Your task to perform on an android device: turn pop-ups on in chrome Image 0: 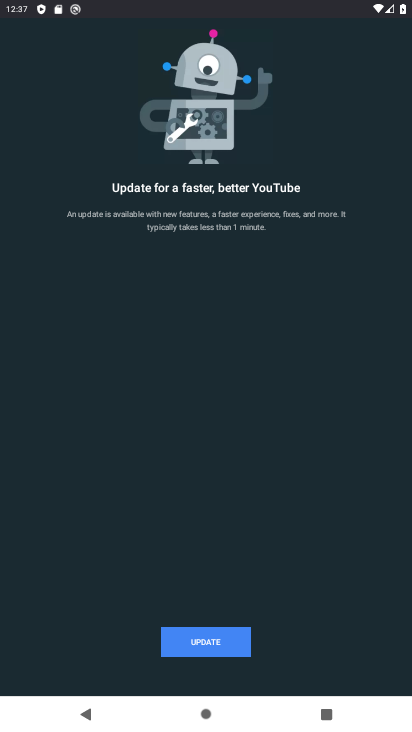
Step 0: drag from (156, 2) to (205, 198)
Your task to perform on an android device: turn pop-ups on in chrome Image 1: 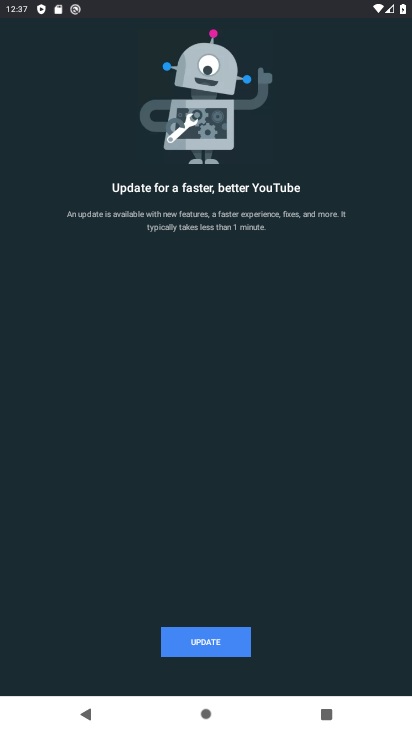
Step 1: press home button
Your task to perform on an android device: turn pop-ups on in chrome Image 2: 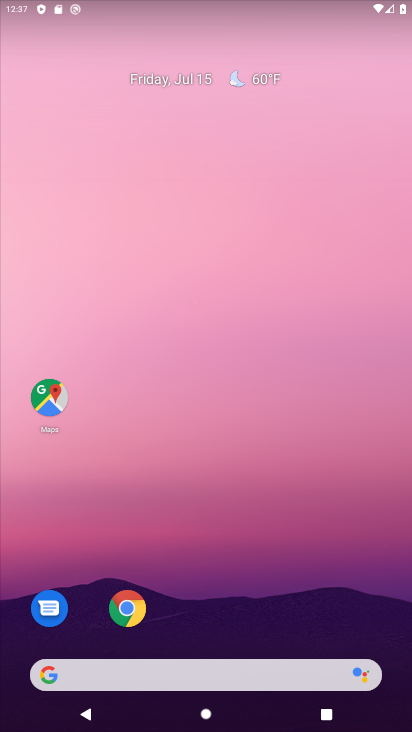
Step 2: drag from (296, 571) to (298, 75)
Your task to perform on an android device: turn pop-ups on in chrome Image 3: 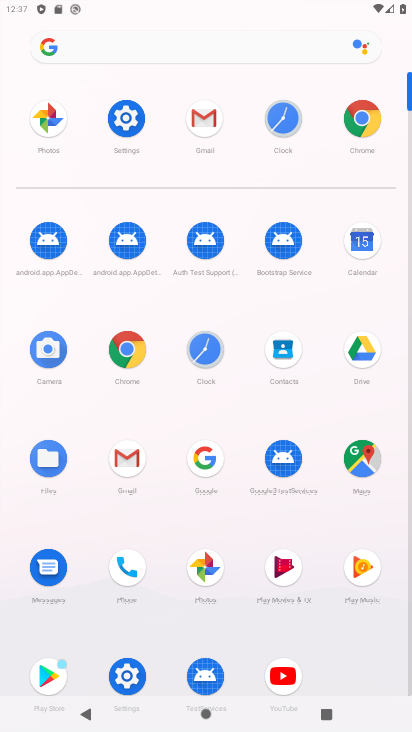
Step 3: click (124, 347)
Your task to perform on an android device: turn pop-ups on in chrome Image 4: 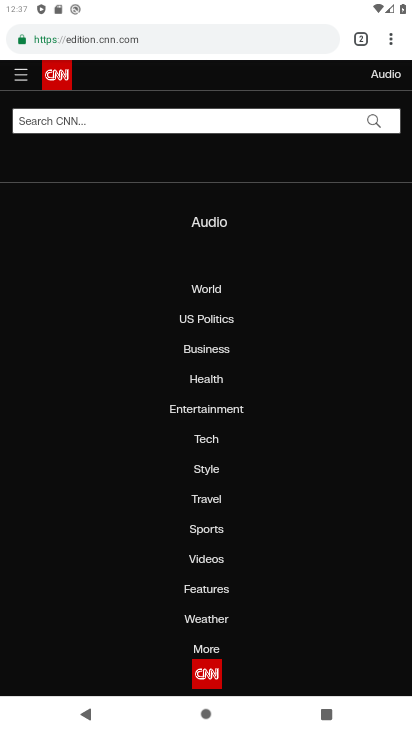
Step 4: drag from (391, 32) to (274, 477)
Your task to perform on an android device: turn pop-ups on in chrome Image 5: 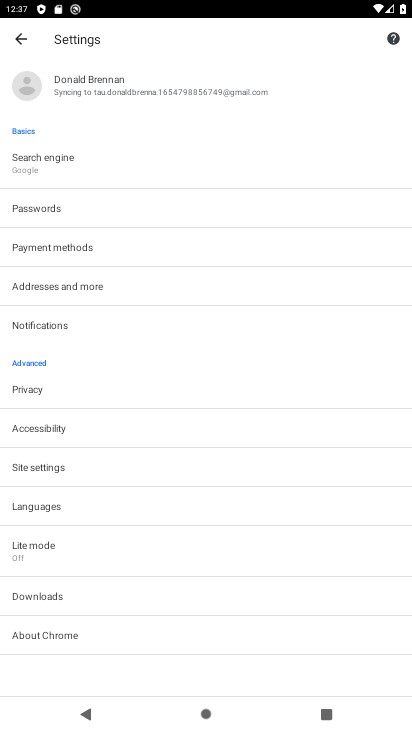
Step 5: drag from (149, 597) to (186, 238)
Your task to perform on an android device: turn pop-ups on in chrome Image 6: 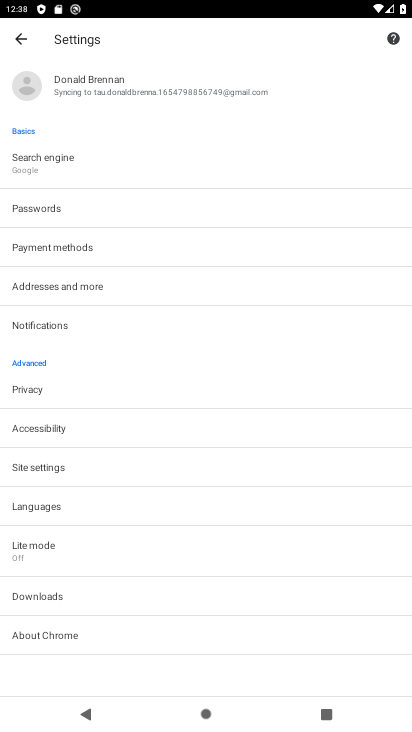
Step 6: click (63, 470)
Your task to perform on an android device: turn pop-ups on in chrome Image 7: 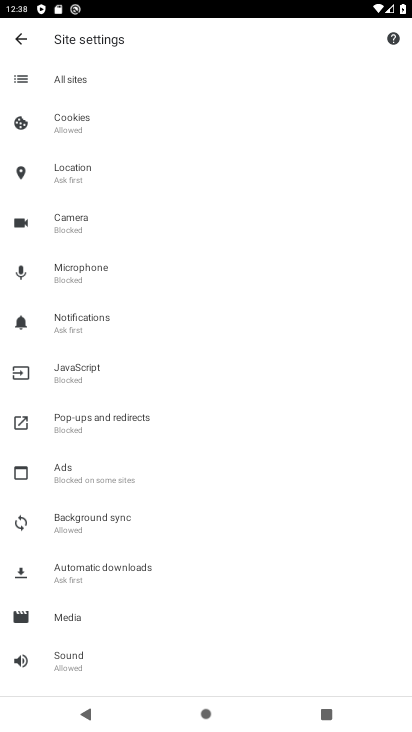
Step 7: click (80, 409)
Your task to perform on an android device: turn pop-ups on in chrome Image 8: 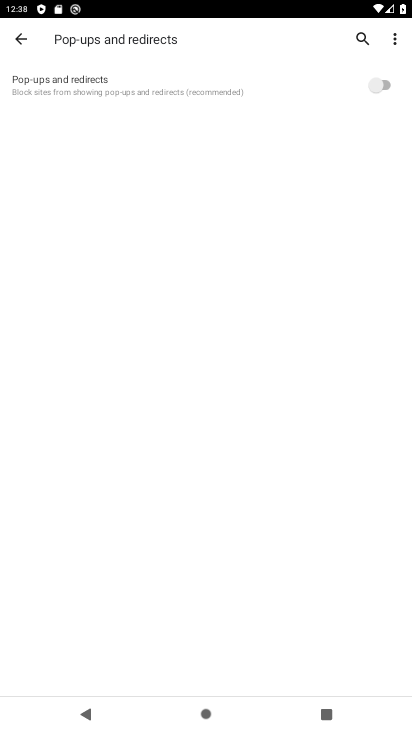
Step 8: click (355, 74)
Your task to perform on an android device: turn pop-ups on in chrome Image 9: 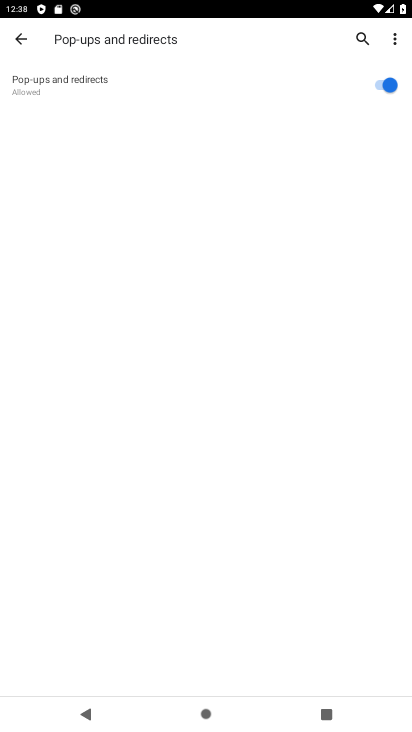
Step 9: task complete